Your task to perform on an android device: Clear all items from cart on bestbuy. Search for "macbook" on bestbuy, select the first entry, add it to the cart, then select checkout. Image 0: 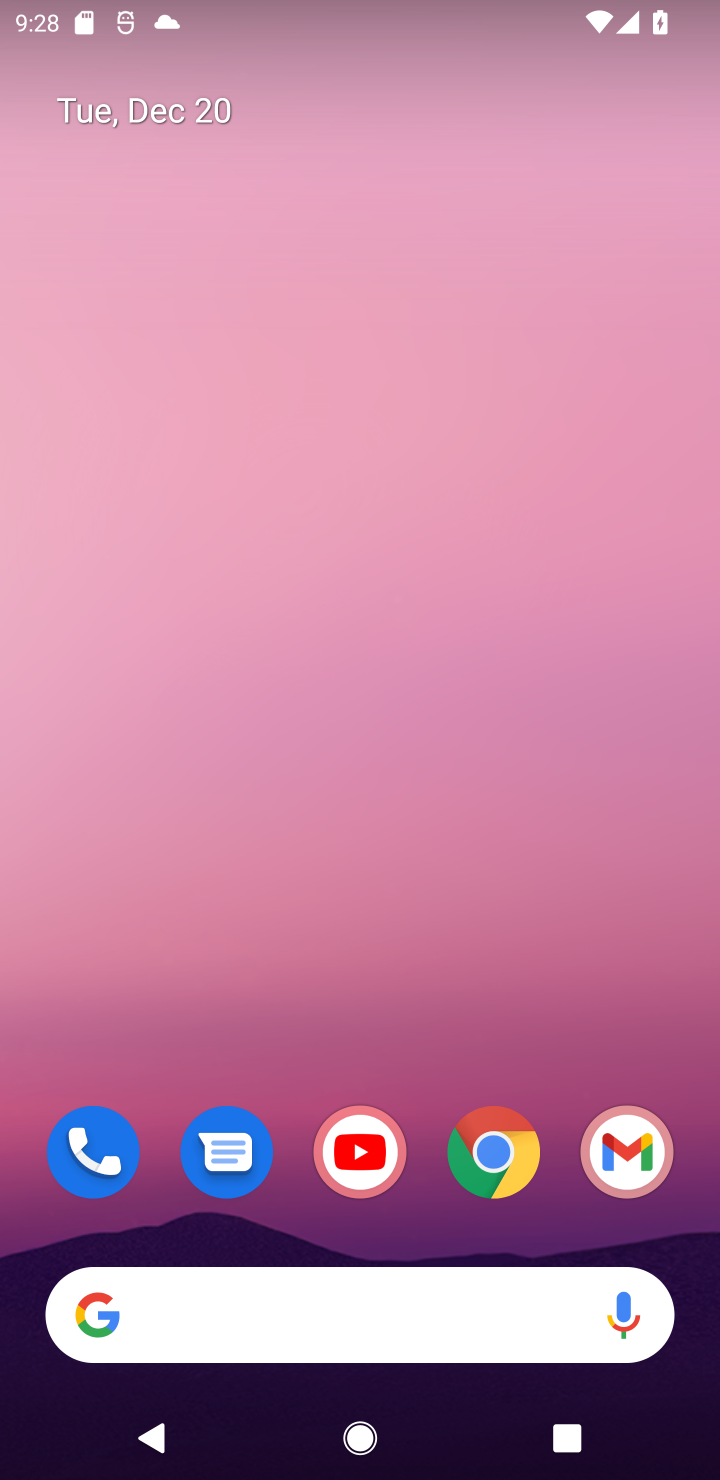
Step 0: click (517, 1139)
Your task to perform on an android device: Clear all items from cart on bestbuy. Search for "macbook" on bestbuy, select the first entry, add it to the cart, then select checkout. Image 1: 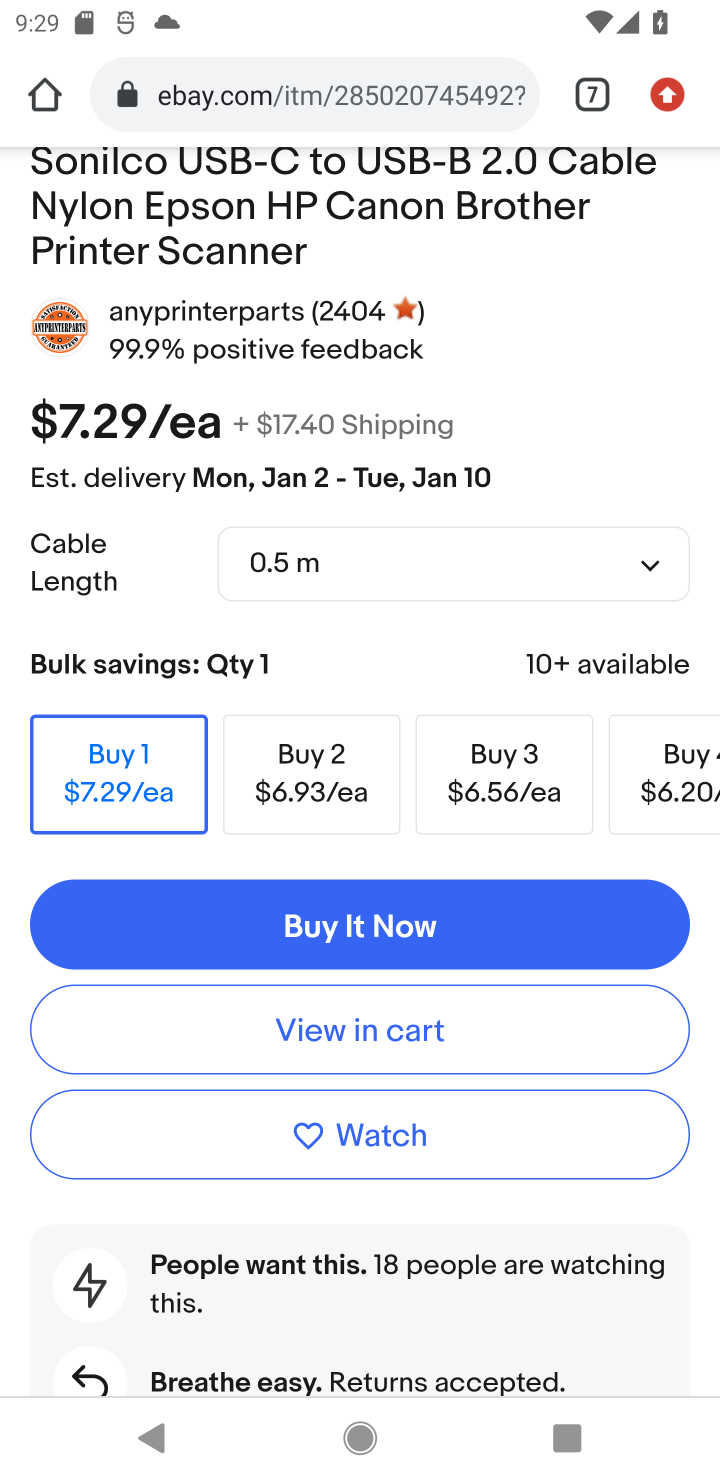
Step 1: click (582, 78)
Your task to perform on an android device: Clear all items from cart on bestbuy. Search for "macbook" on bestbuy, select the first entry, add it to the cart, then select checkout. Image 2: 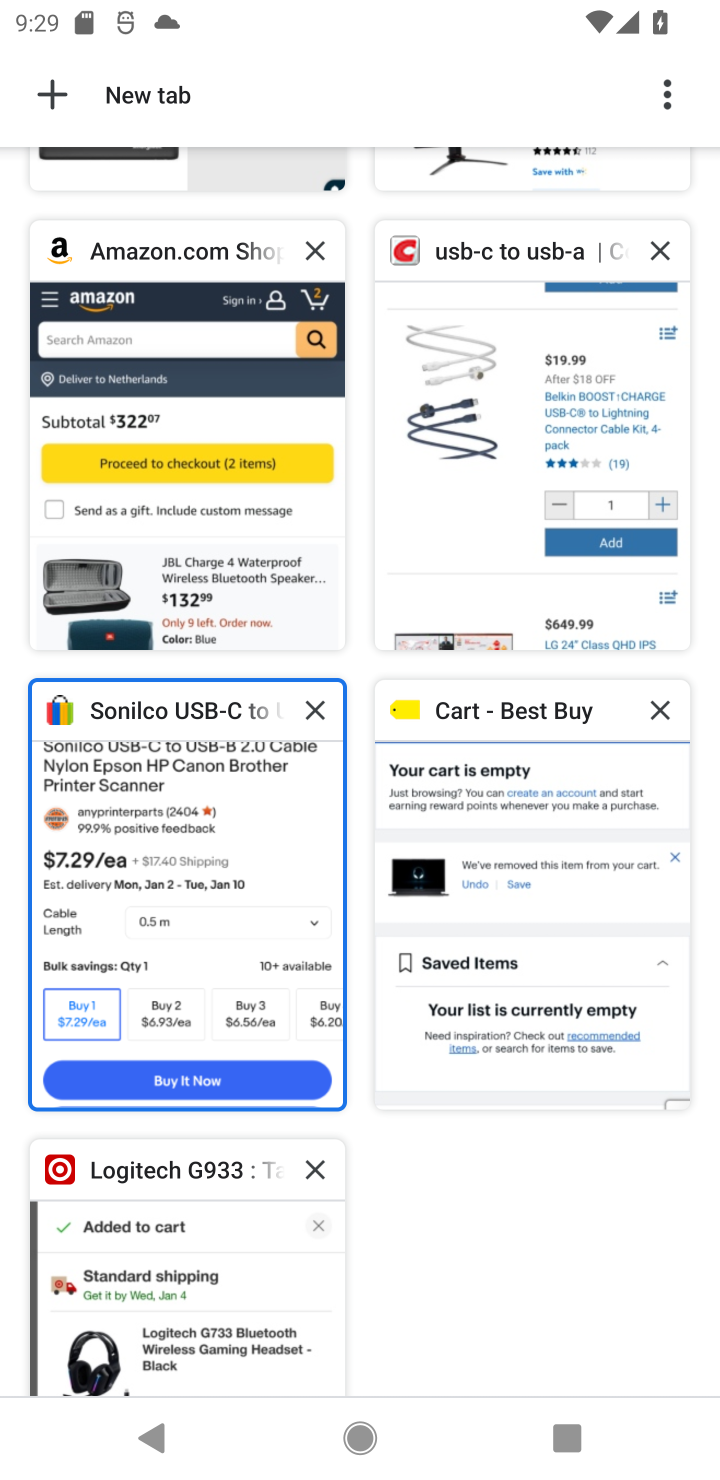
Step 2: click (489, 856)
Your task to perform on an android device: Clear all items from cart on bestbuy. Search for "macbook" on bestbuy, select the first entry, add it to the cart, then select checkout. Image 3: 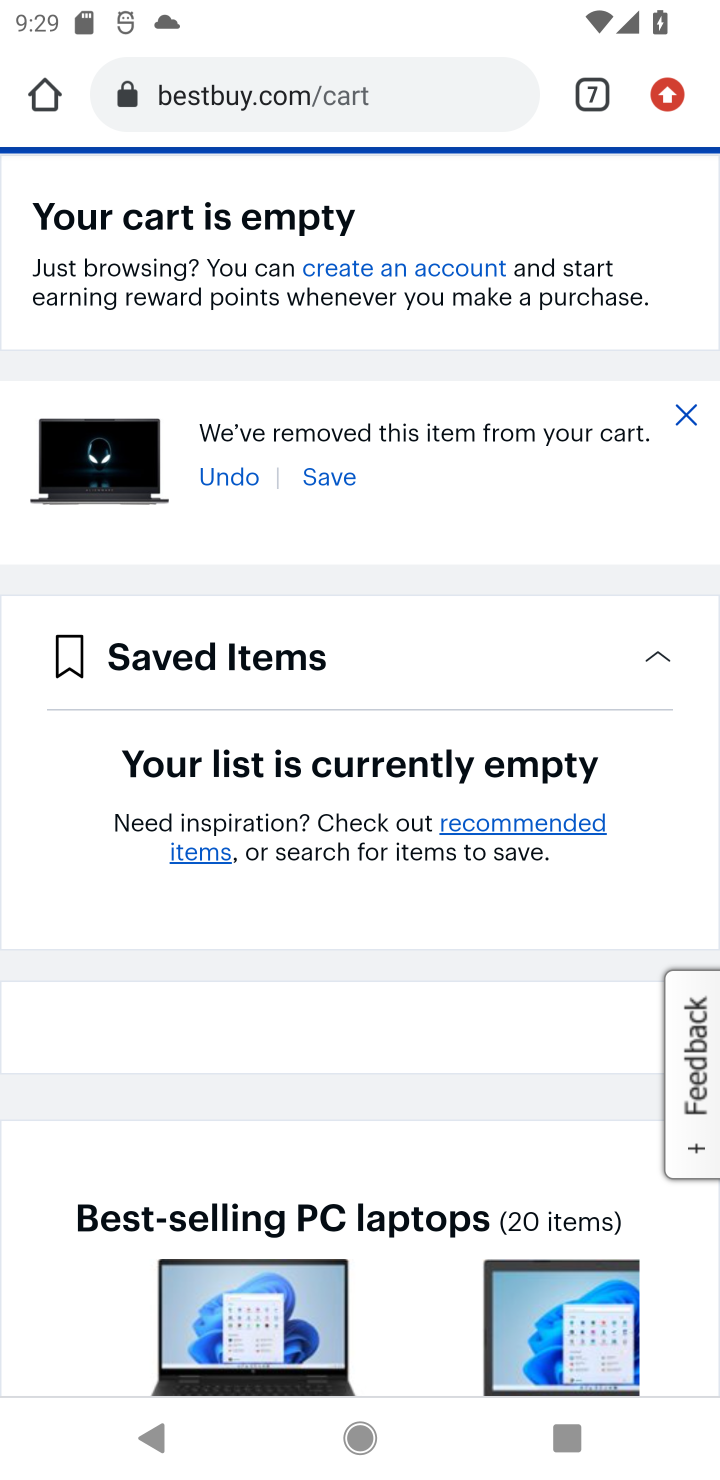
Step 3: drag from (539, 274) to (326, 860)
Your task to perform on an android device: Clear all items from cart on bestbuy. Search for "macbook" on bestbuy, select the first entry, add it to the cart, then select checkout. Image 4: 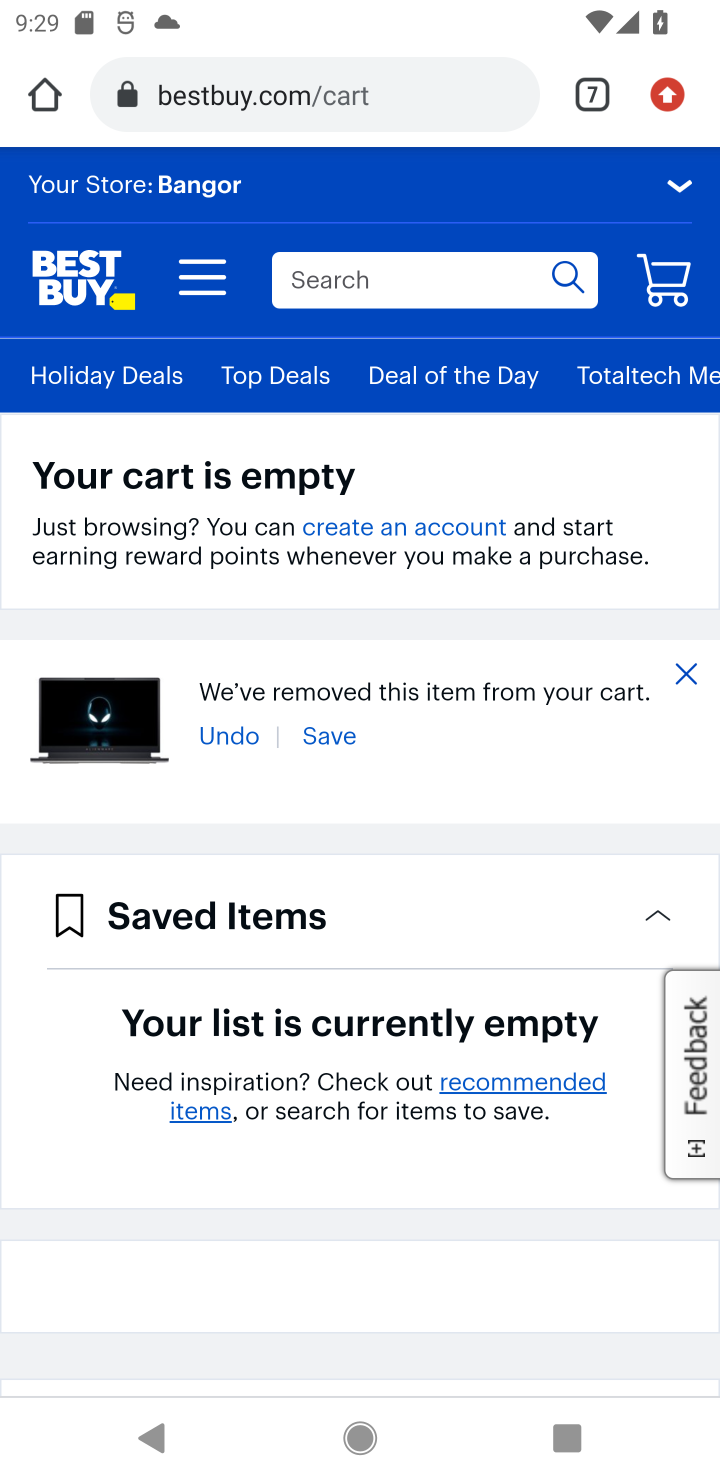
Step 4: click (344, 299)
Your task to perform on an android device: Clear all items from cart on bestbuy. Search for "macbook" on bestbuy, select the first entry, add it to the cart, then select checkout. Image 5: 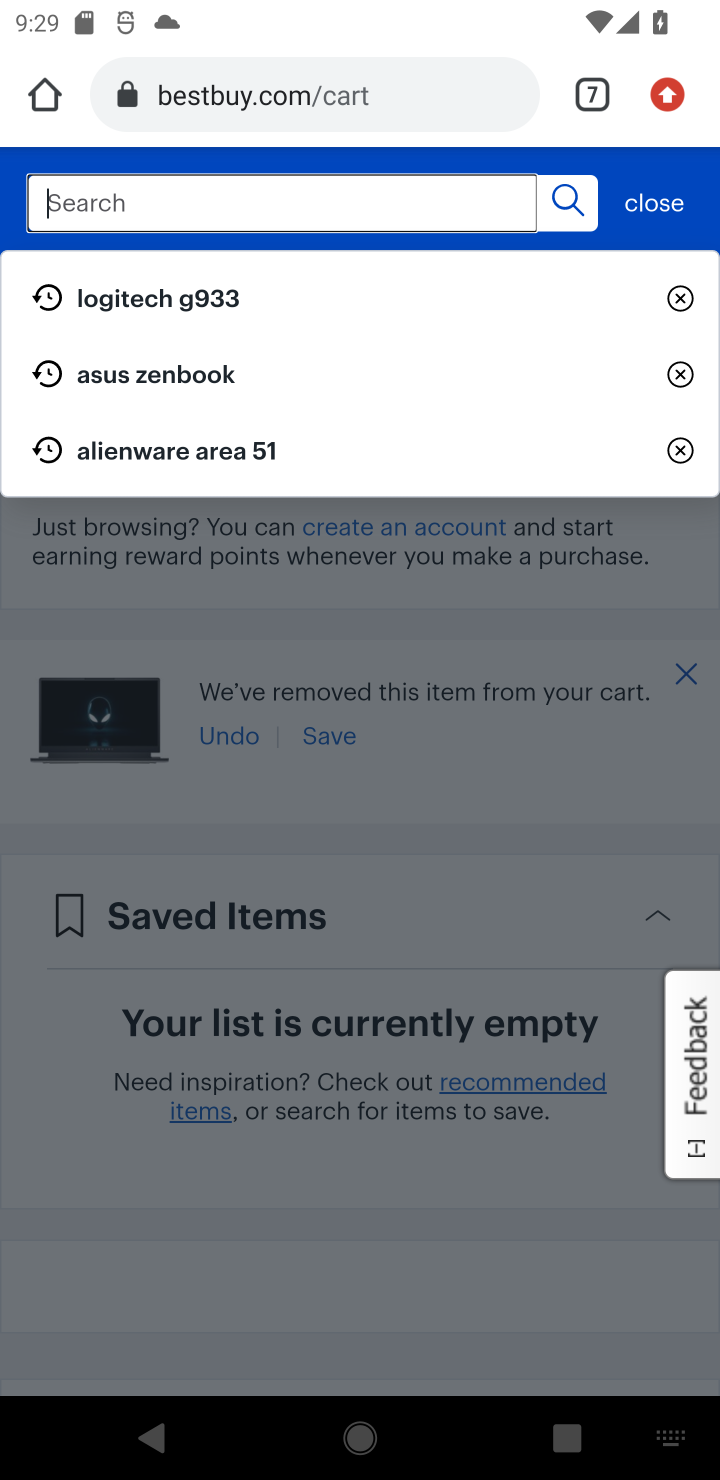
Step 5: type "macbook"
Your task to perform on an android device: Clear all items from cart on bestbuy. Search for "macbook" on bestbuy, select the first entry, add it to the cart, then select checkout. Image 6: 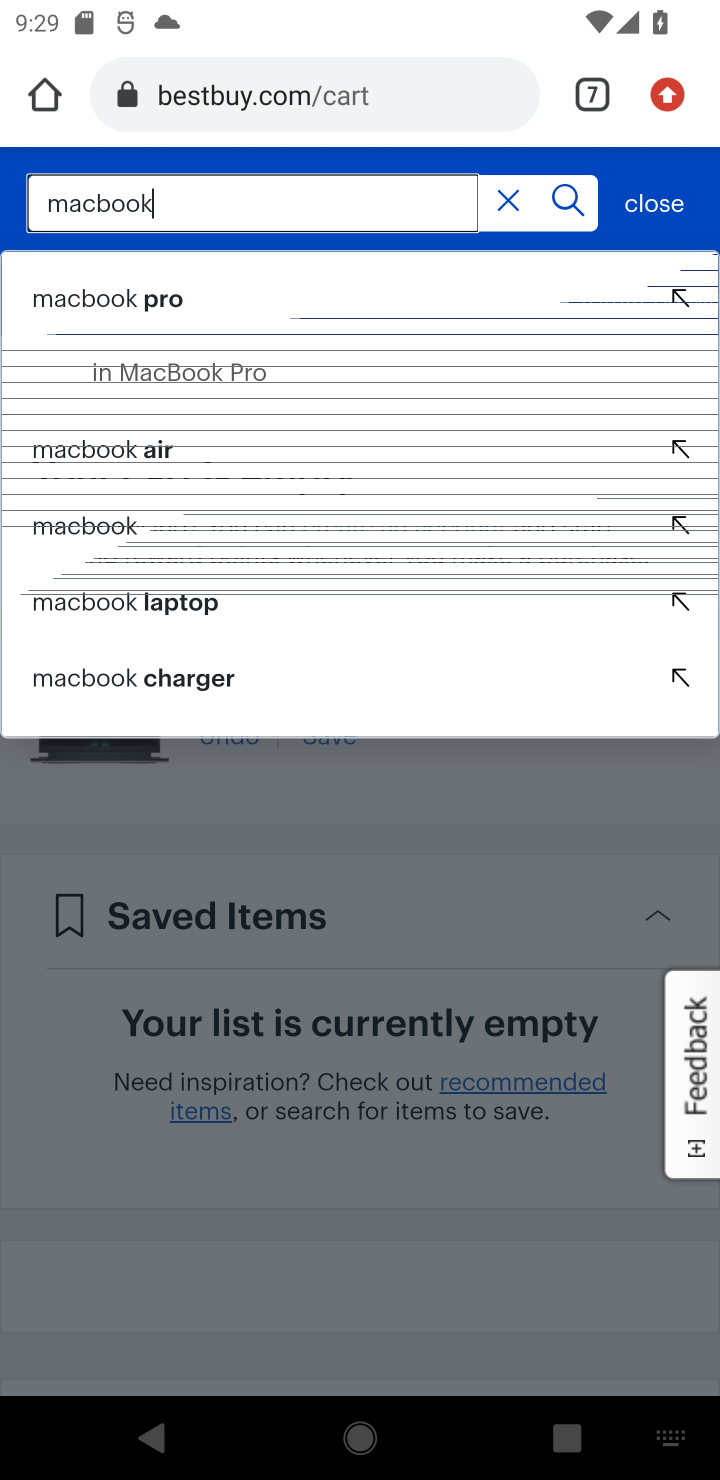
Step 6: click (554, 195)
Your task to perform on an android device: Clear all items from cart on bestbuy. Search for "macbook" on bestbuy, select the first entry, add it to the cart, then select checkout. Image 7: 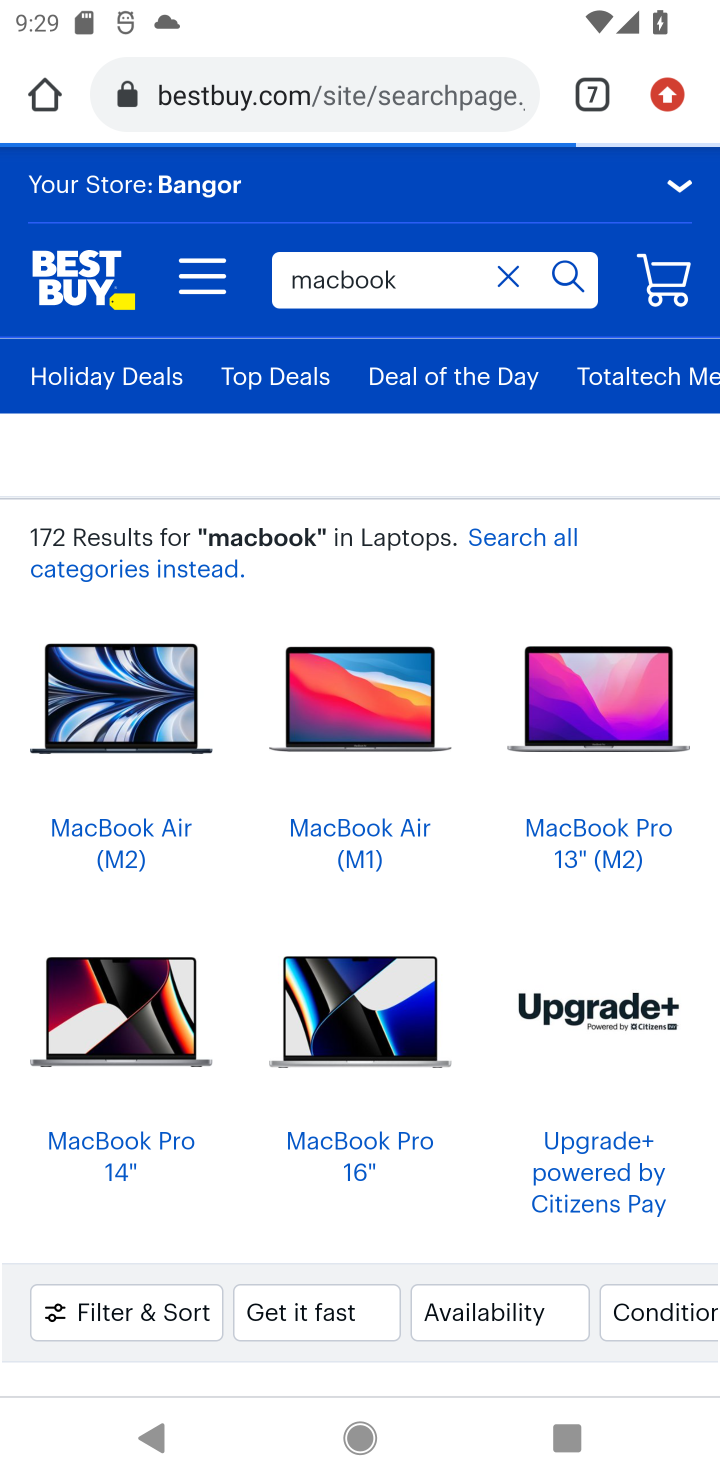
Step 7: drag from (327, 1283) to (421, 408)
Your task to perform on an android device: Clear all items from cart on bestbuy. Search for "macbook" on bestbuy, select the first entry, add it to the cart, then select checkout. Image 8: 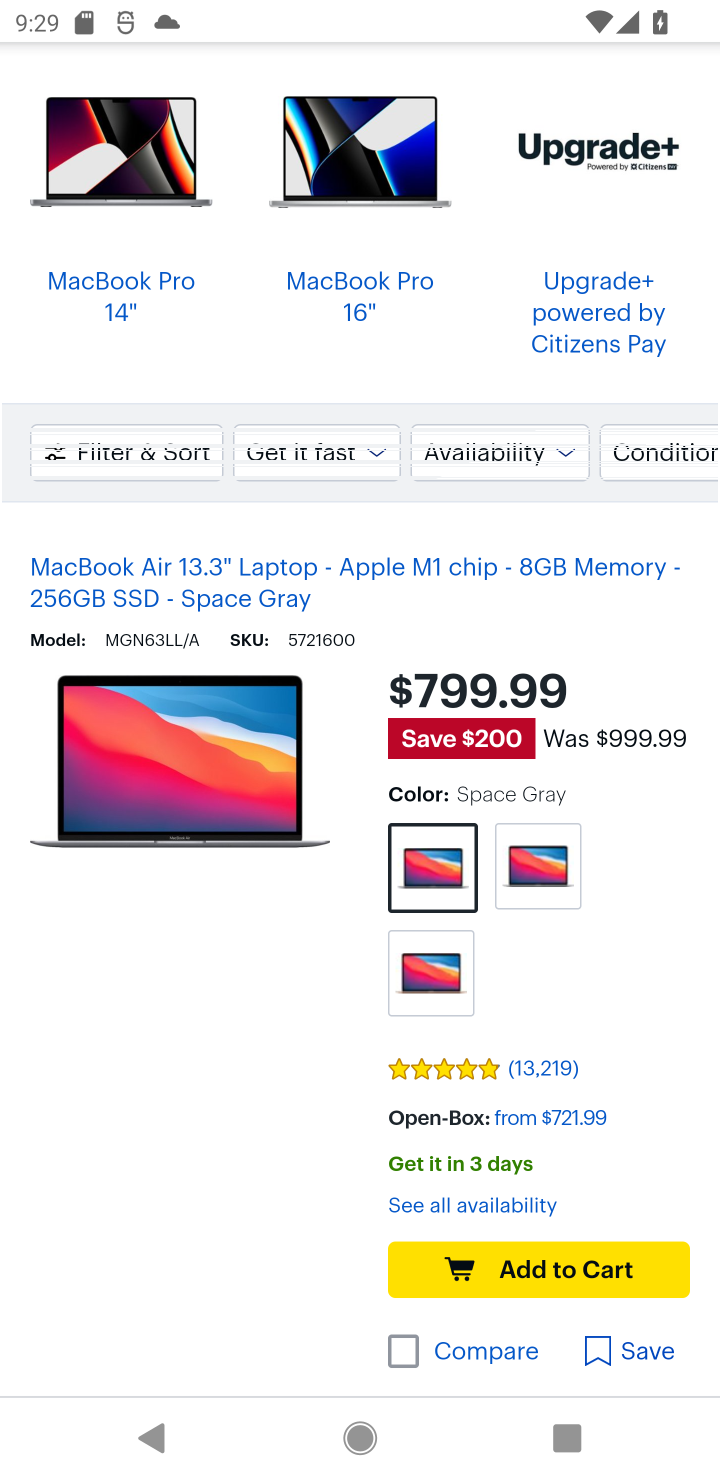
Step 8: click (585, 1265)
Your task to perform on an android device: Clear all items from cart on bestbuy. Search for "macbook" on bestbuy, select the first entry, add it to the cart, then select checkout. Image 9: 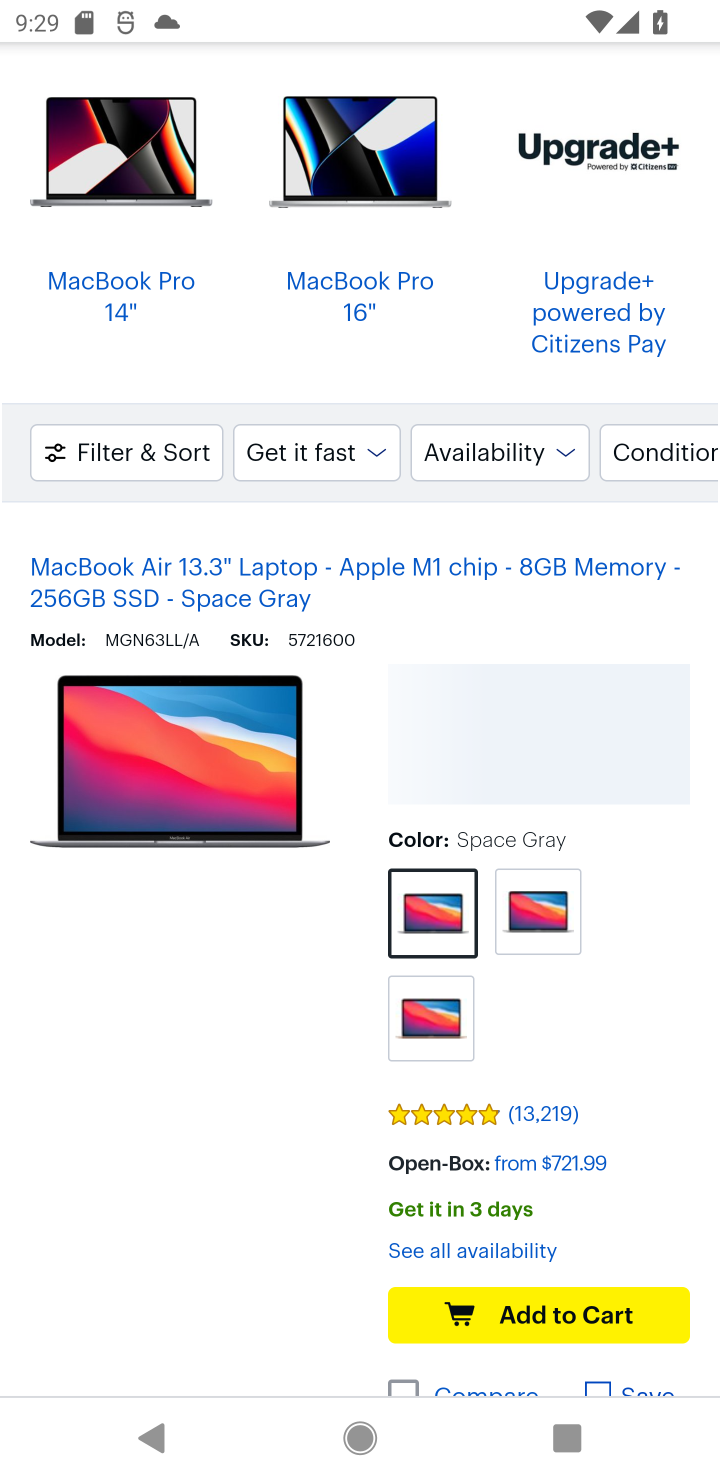
Step 9: task complete